Your task to perform on an android device: read, delete, or share a saved page in the chrome app Image 0: 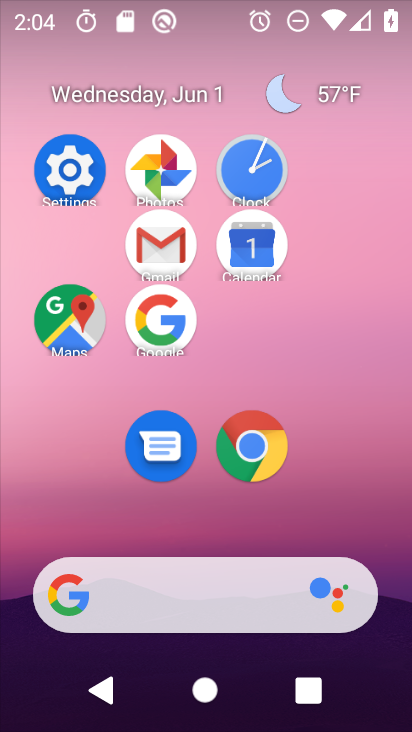
Step 0: click (243, 449)
Your task to perform on an android device: read, delete, or share a saved page in the chrome app Image 1: 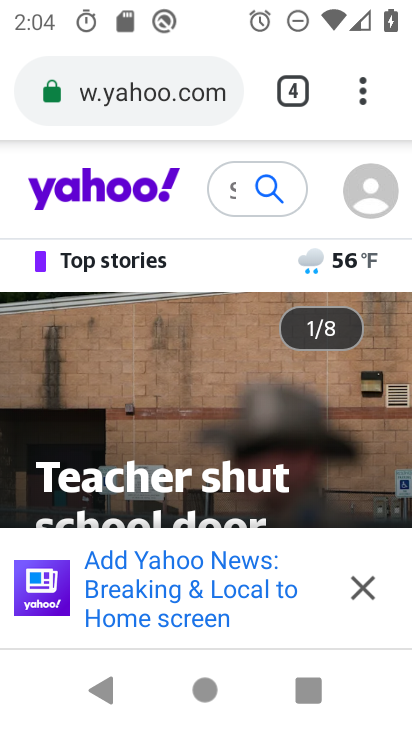
Step 1: click (358, 88)
Your task to perform on an android device: read, delete, or share a saved page in the chrome app Image 2: 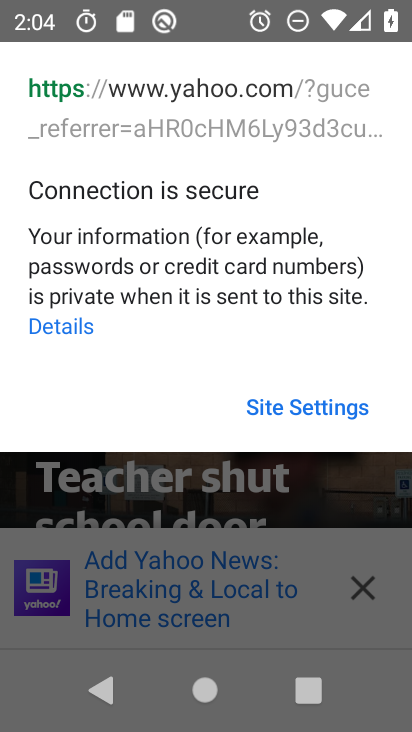
Step 2: click (398, 682)
Your task to perform on an android device: read, delete, or share a saved page in the chrome app Image 3: 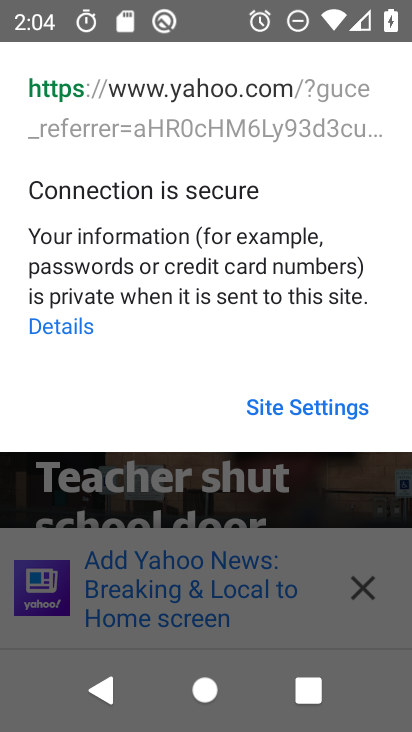
Step 3: click (342, 388)
Your task to perform on an android device: read, delete, or share a saved page in the chrome app Image 4: 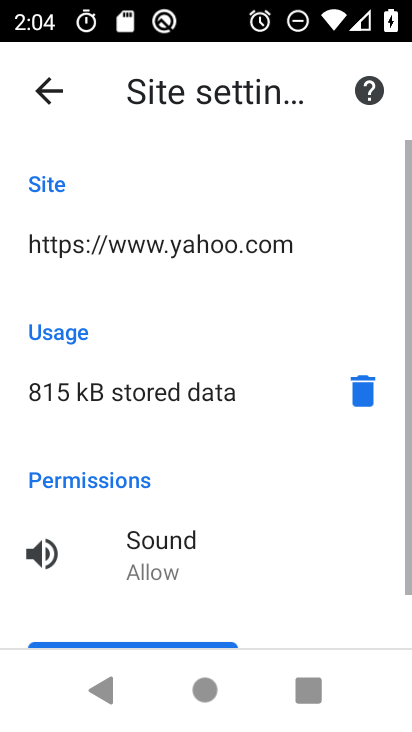
Step 4: click (62, 75)
Your task to perform on an android device: read, delete, or share a saved page in the chrome app Image 5: 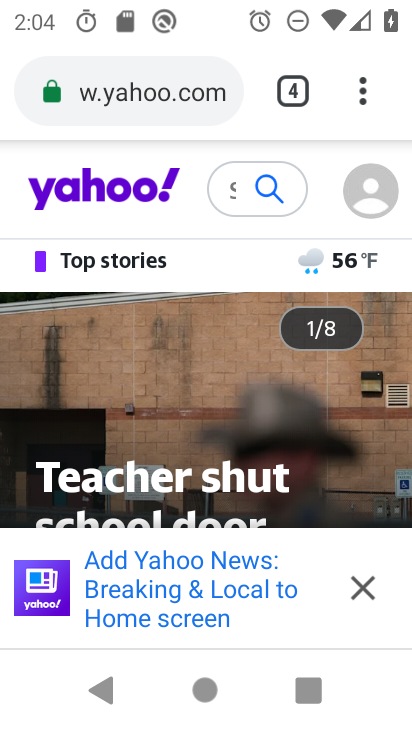
Step 5: click (375, 88)
Your task to perform on an android device: read, delete, or share a saved page in the chrome app Image 6: 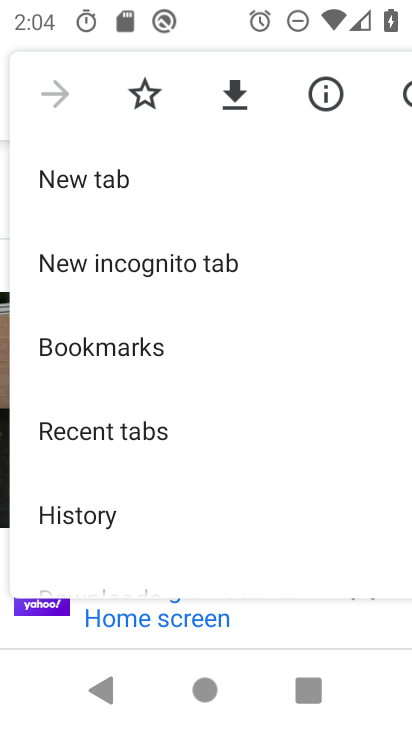
Step 6: drag from (144, 474) to (161, 123)
Your task to perform on an android device: read, delete, or share a saved page in the chrome app Image 7: 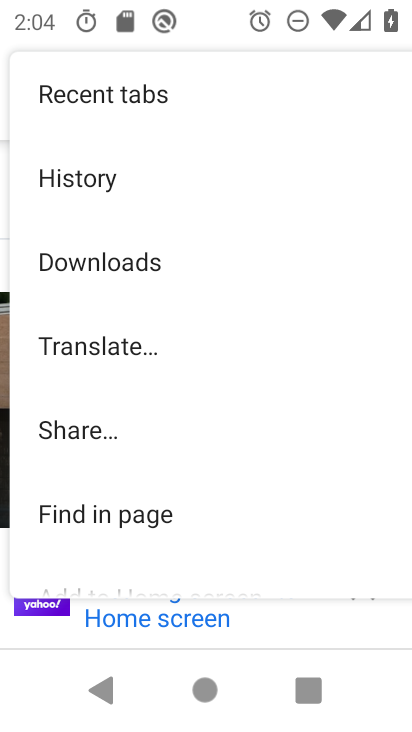
Step 7: click (158, 263)
Your task to perform on an android device: read, delete, or share a saved page in the chrome app Image 8: 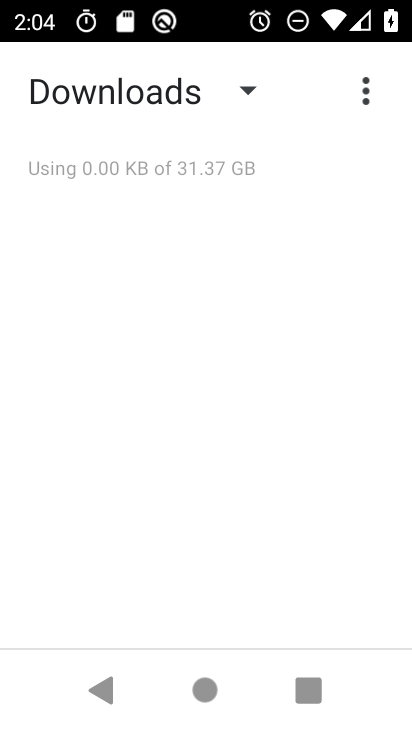
Step 8: task complete